Your task to perform on an android device: Open ESPN.com Image 0: 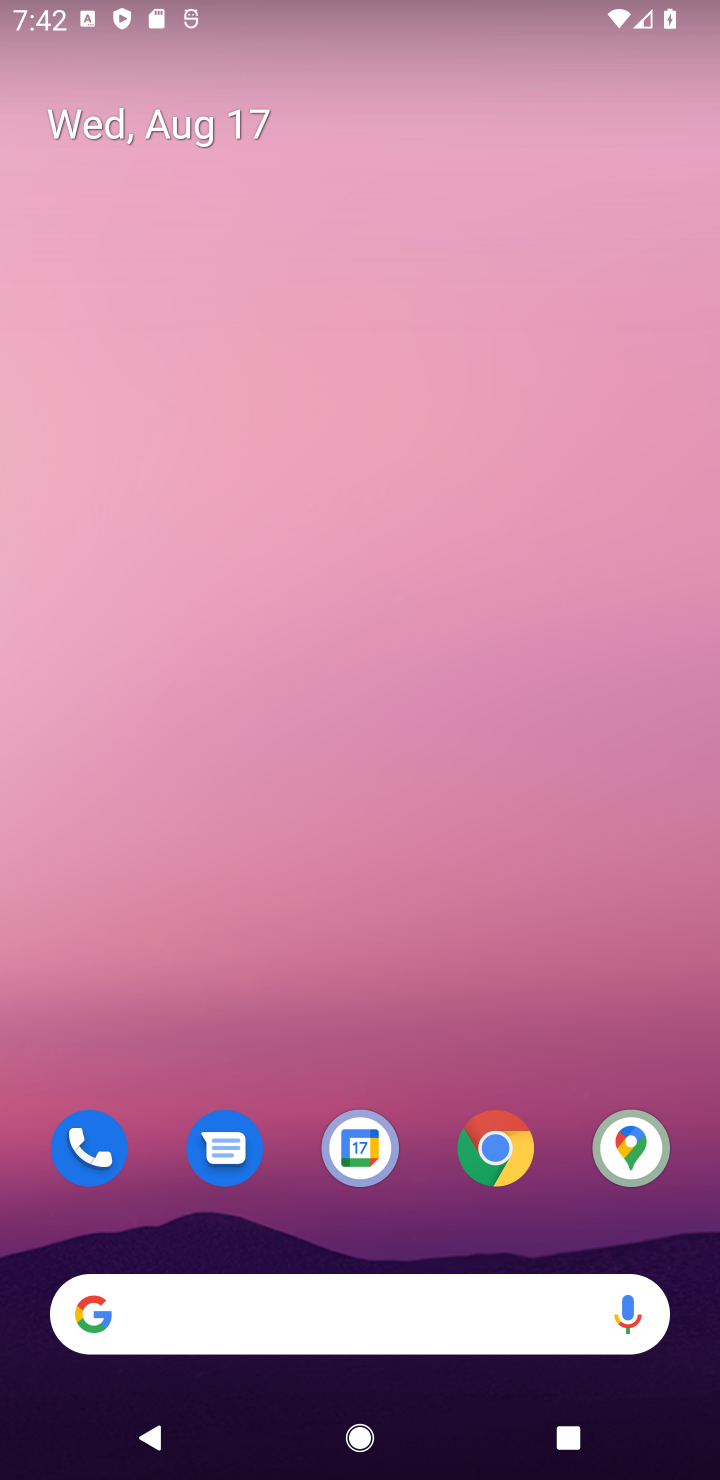
Step 0: click (496, 1149)
Your task to perform on an android device: Open ESPN.com Image 1: 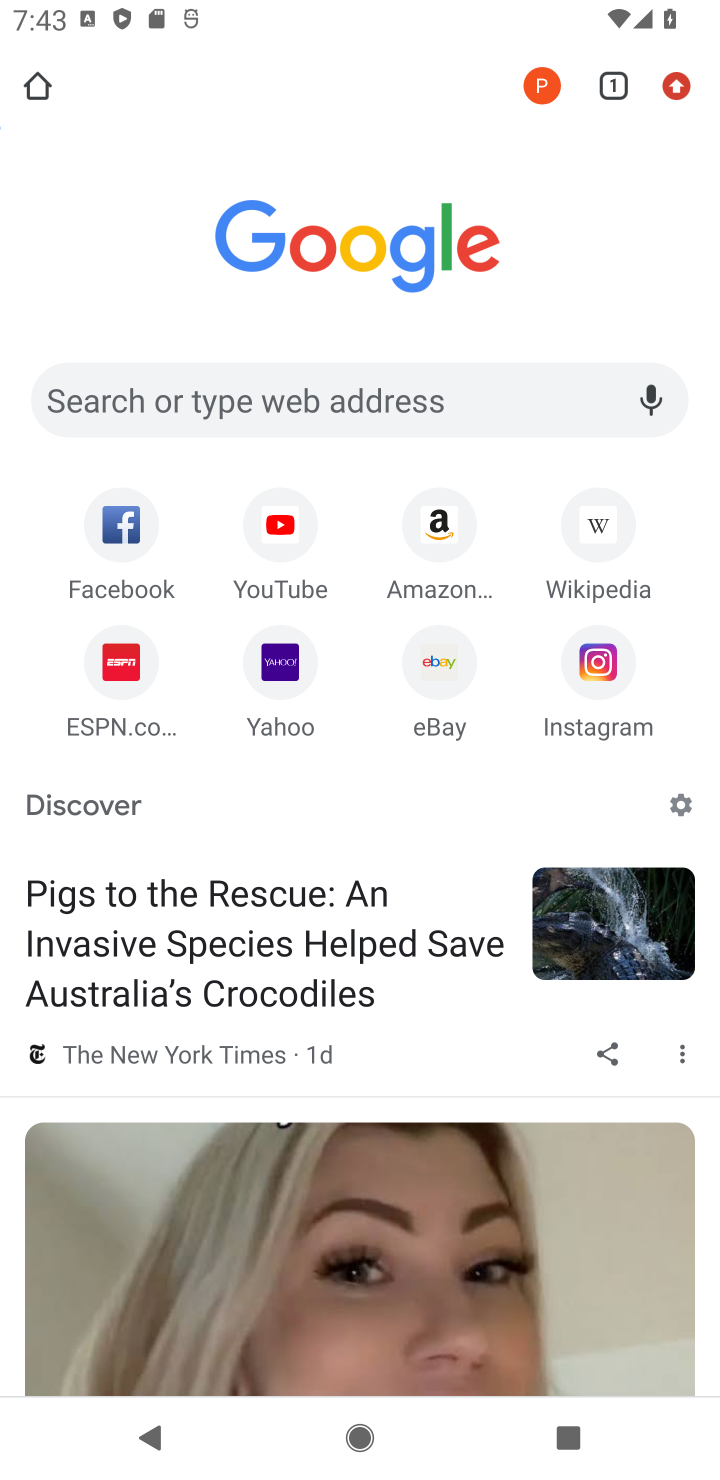
Step 1: click (311, 394)
Your task to perform on an android device: Open ESPN.com Image 2: 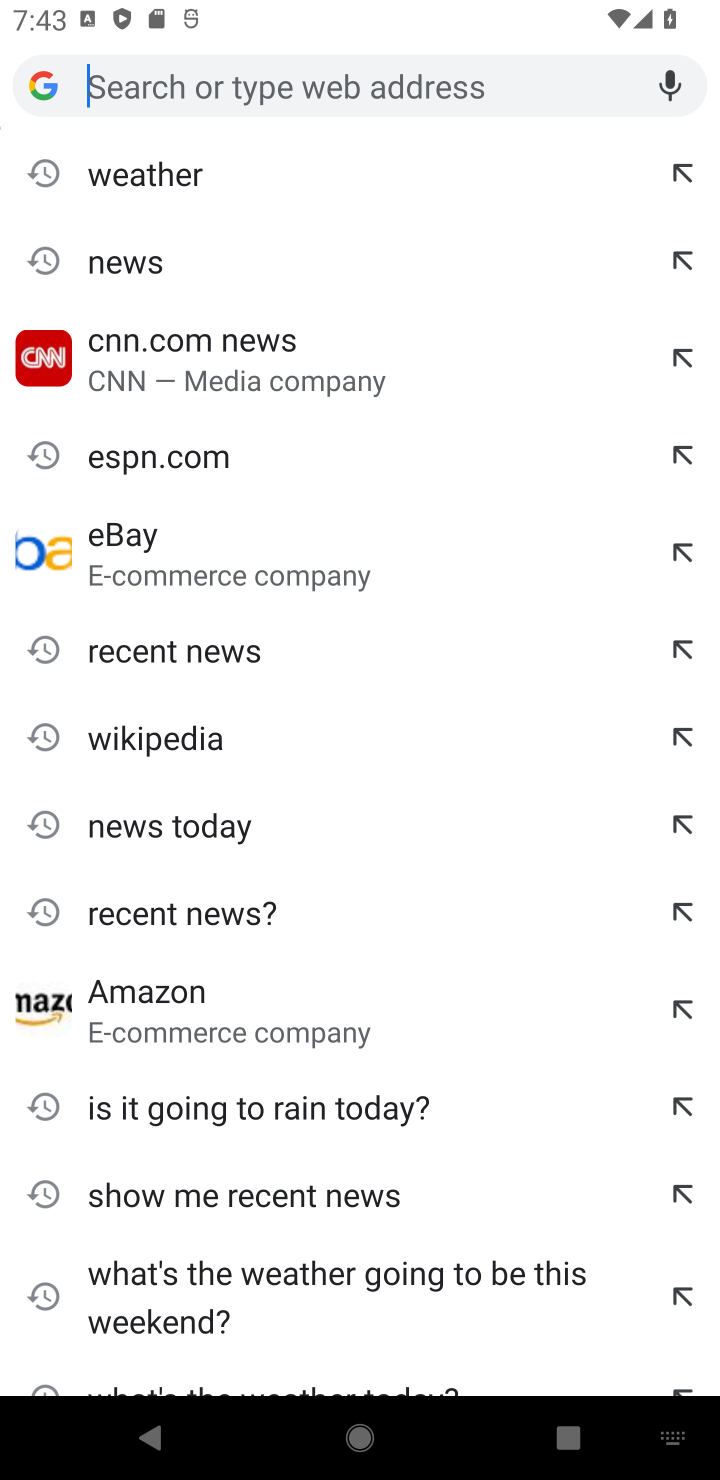
Step 2: type "espn.com"
Your task to perform on an android device: Open ESPN.com Image 3: 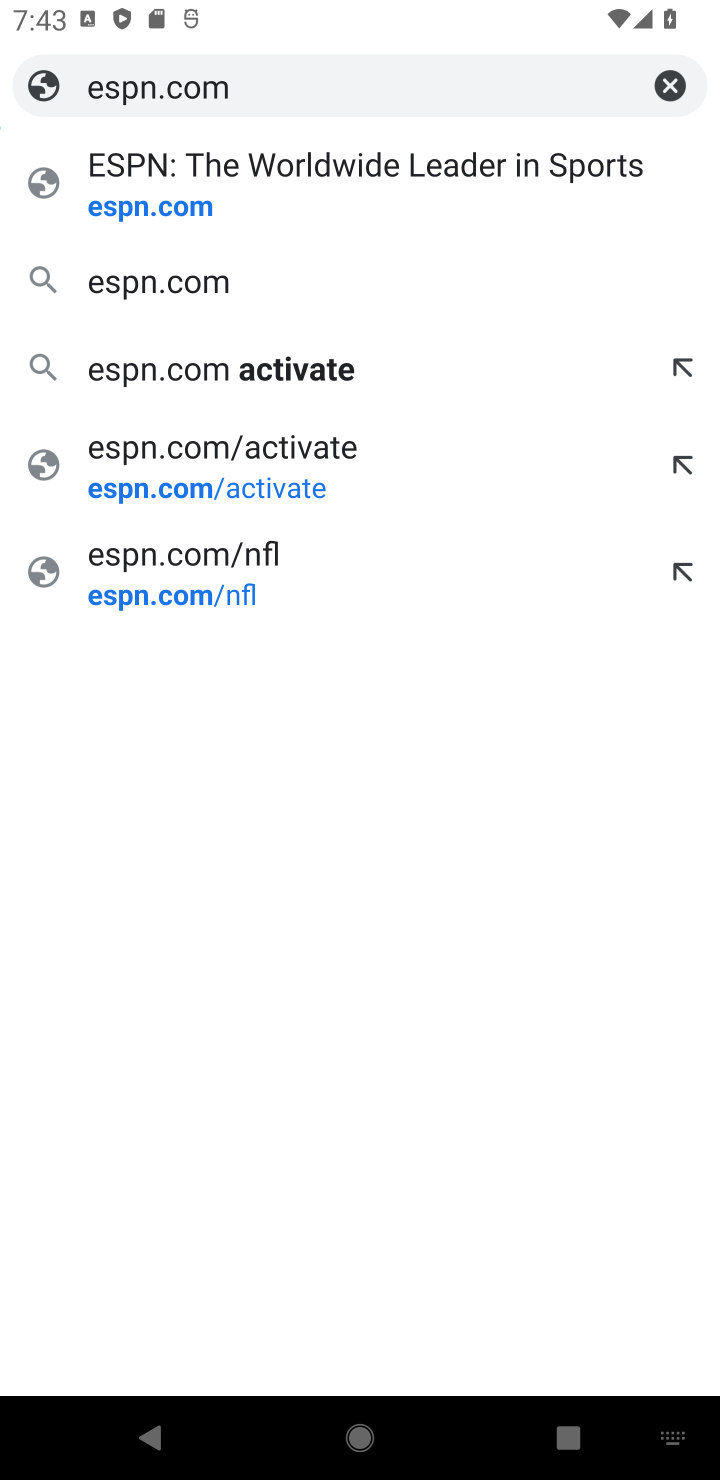
Step 3: click (228, 175)
Your task to perform on an android device: Open ESPN.com Image 4: 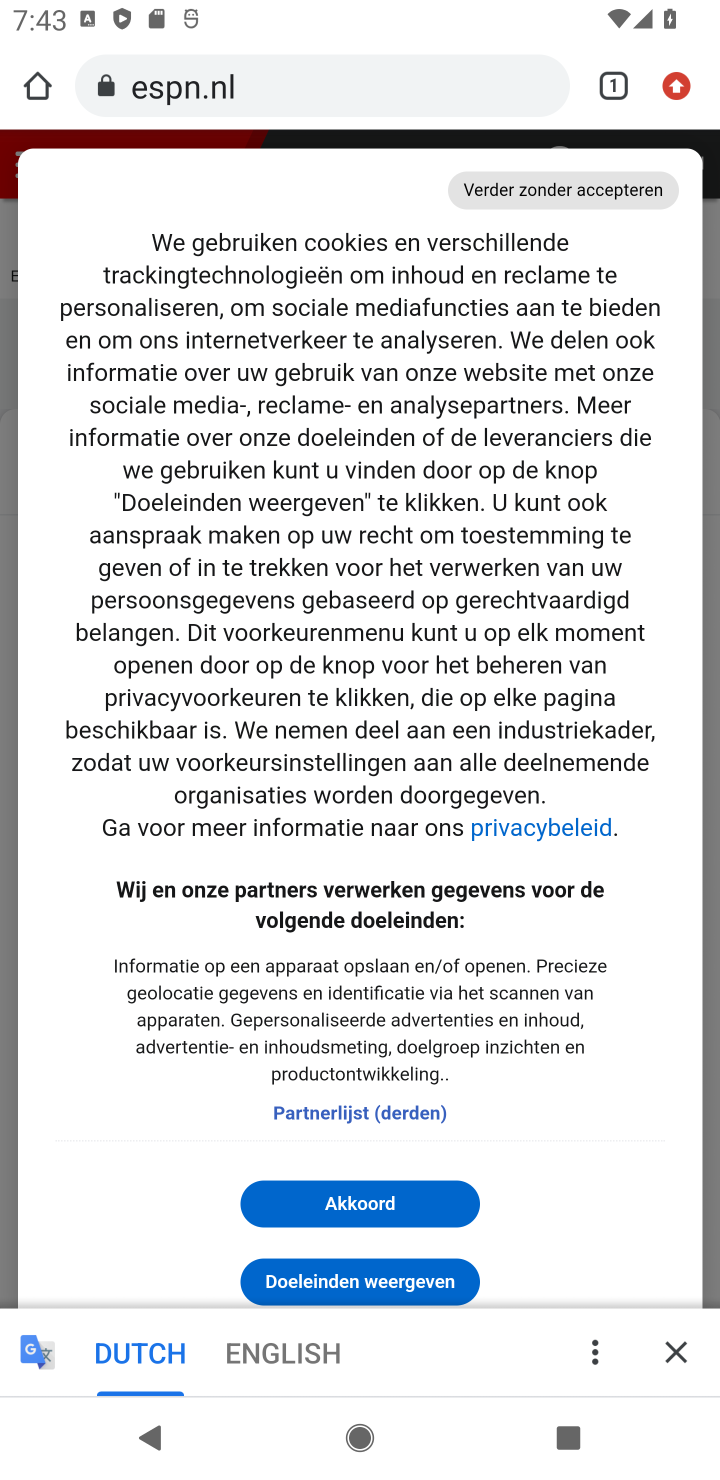
Step 4: click (371, 1209)
Your task to perform on an android device: Open ESPN.com Image 5: 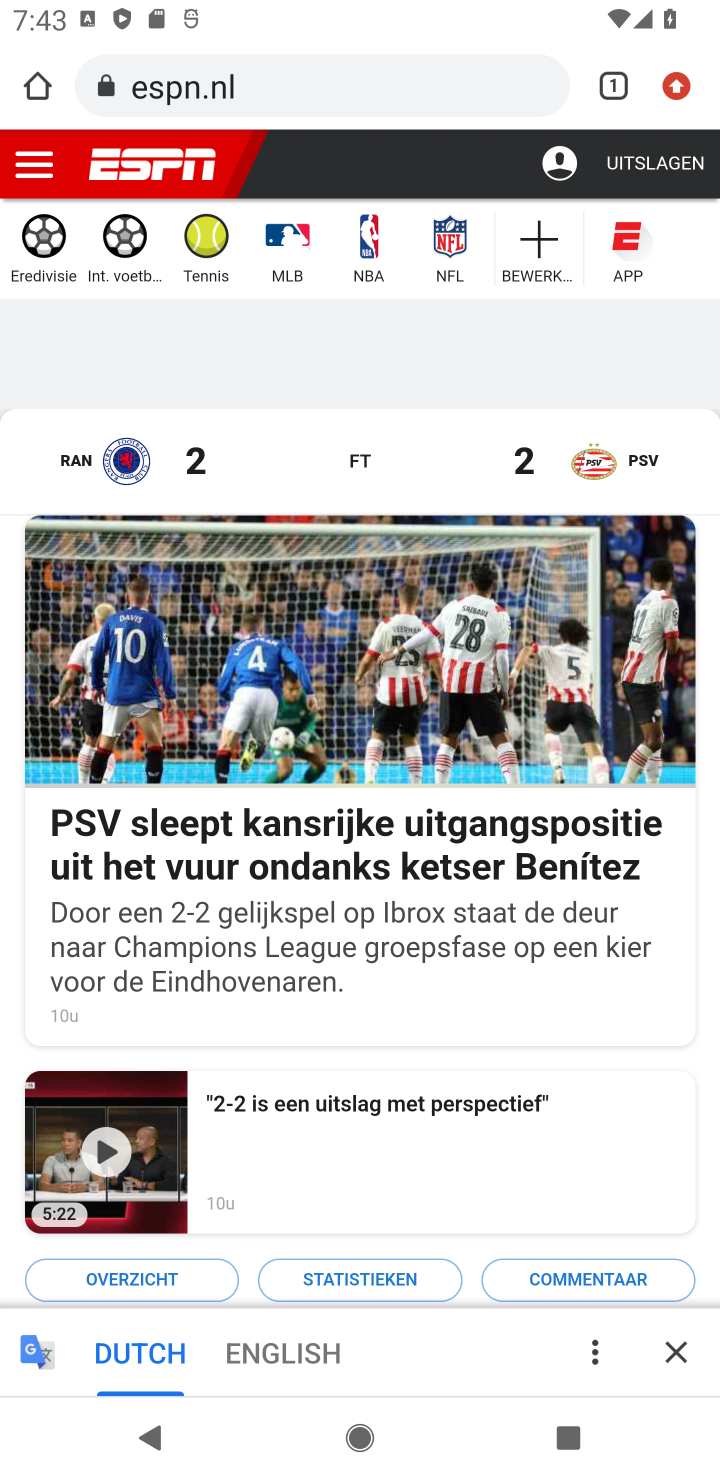
Step 5: task complete